Your task to perform on an android device: toggle improve location accuracy Image 0: 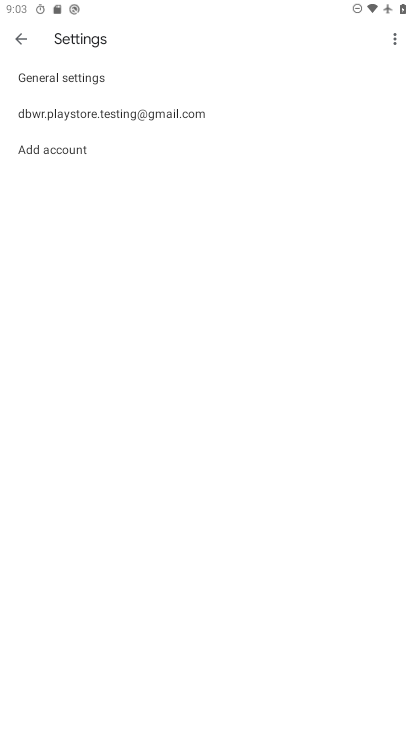
Step 0: press home button
Your task to perform on an android device: toggle improve location accuracy Image 1: 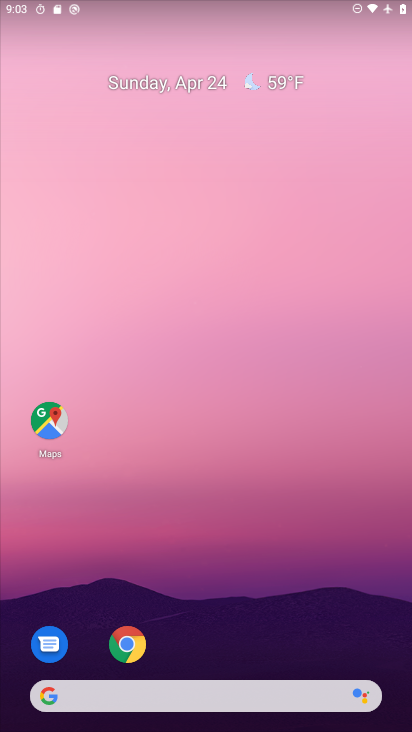
Step 1: drag from (225, 647) to (240, 40)
Your task to perform on an android device: toggle improve location accuracy Image 2: 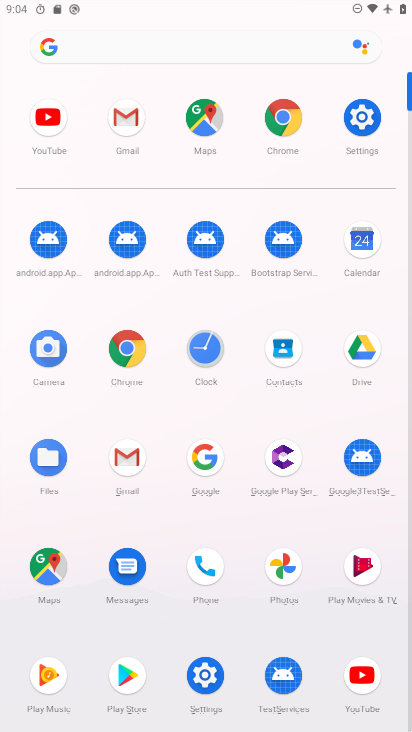
Step 2: click (202, 669)
Your task to perform on an android device: toggle improve location accuracy Image 3: 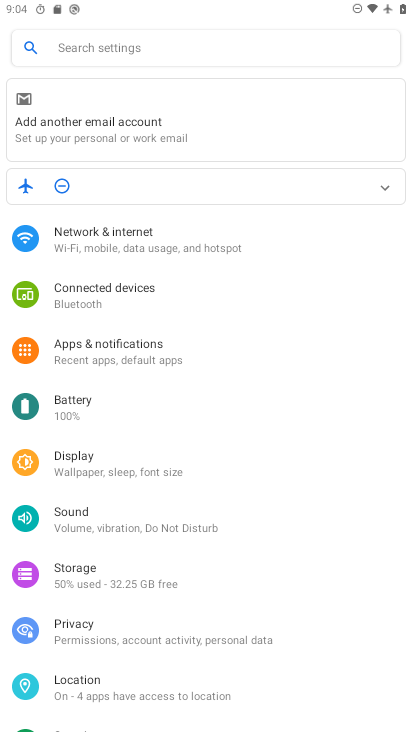
Step 3: click (122, 678)
Your task to perform on an android device: toggle improve location accuracy Image 4: 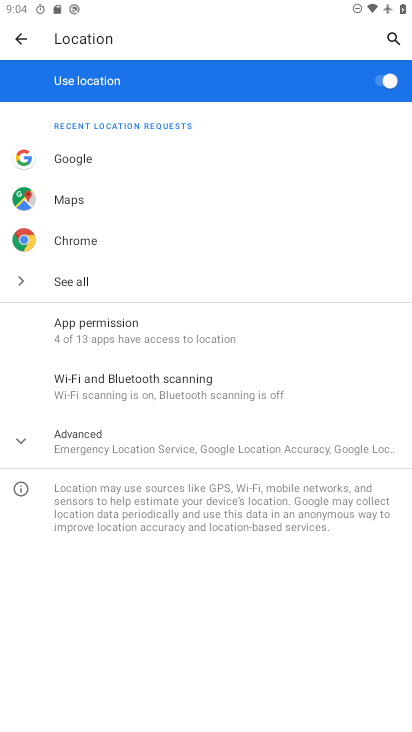
Step 4: click (19, 434)
Your task to perform on an android device: toggle improve location accuracy Image 5: 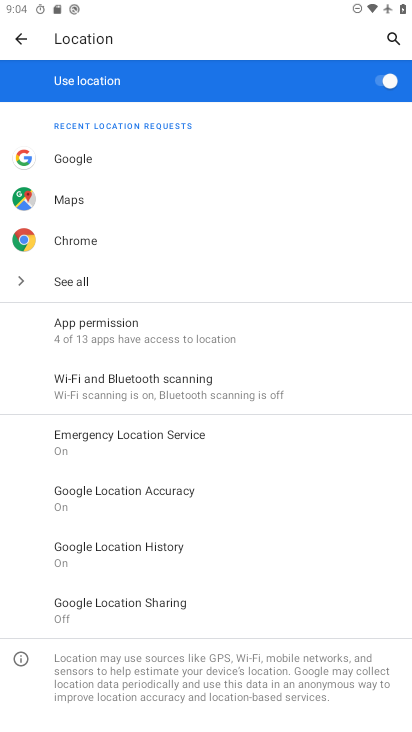
Step 5: click (132, 493)
Your task to perform on an android device: toggle improve location accuracy Image 6: 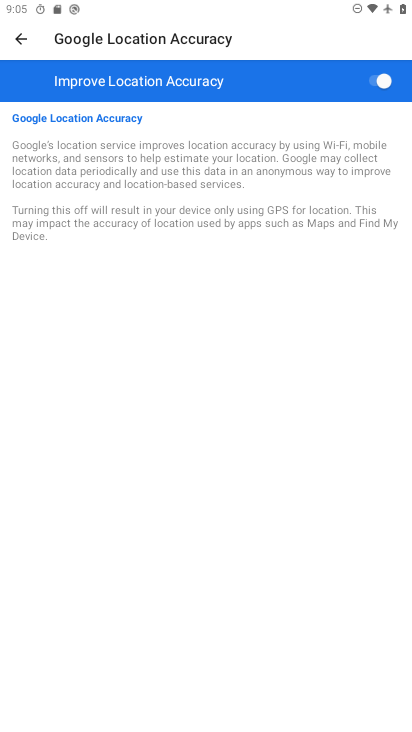
Step 6: task complete